Your task to perform on an android device: Open the calendar app, open the side menu, and click the "Day" option Image 0: 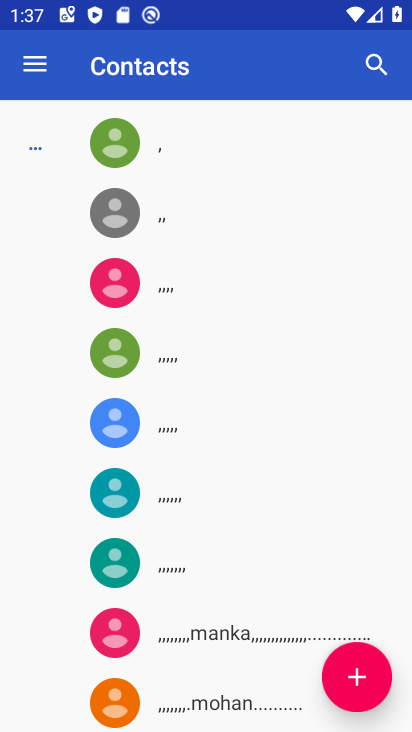
Step 0: press home button
Your task to perform on an android device: Open the calendar app, open the side menu, and click the "Day" option Image 1: 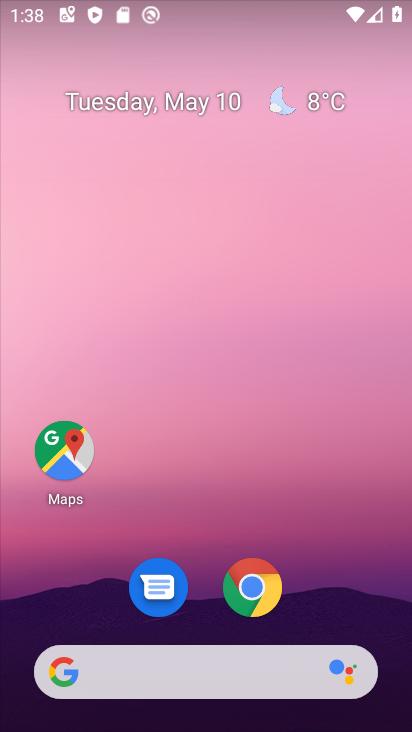
Step 1: drag from (326, 550) to (273, 57)
Your task to perform on an android device: Open the calendar app, open the side menu, and click the "Day" option Image 2: 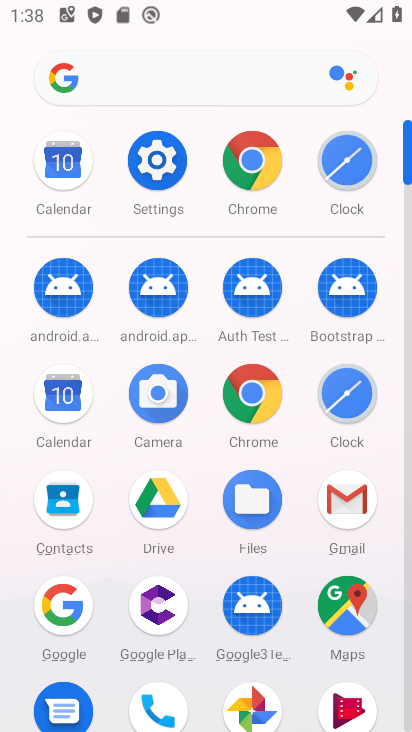
Step 2: click (63, 387)
Your task to perform on an android device: Open the calendar app, open the side menu, and click the "Day" option Image 3: 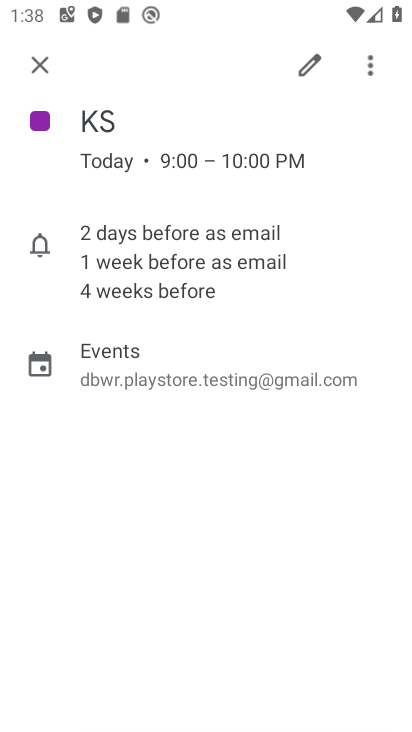
Step 3: click (26, 54)
Your task to perform on an android device: Open the calendar app, open the side menu, and click the "Day" option Image 4: 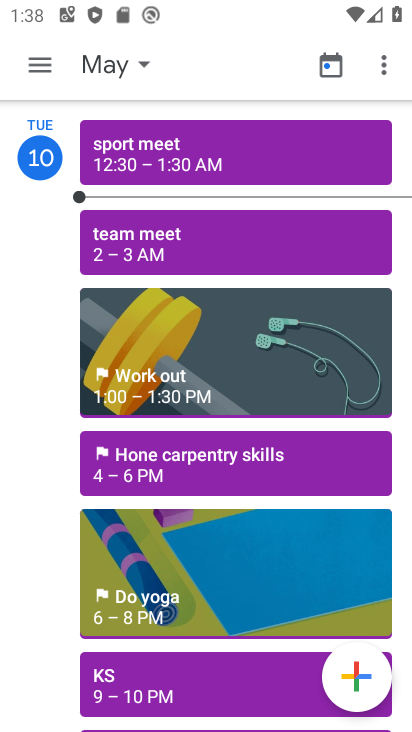
Step 4: click (44, 65)
Your task to perform on an android device: Open the calendar app, open the side menu, and click the "Day" option Image 5: 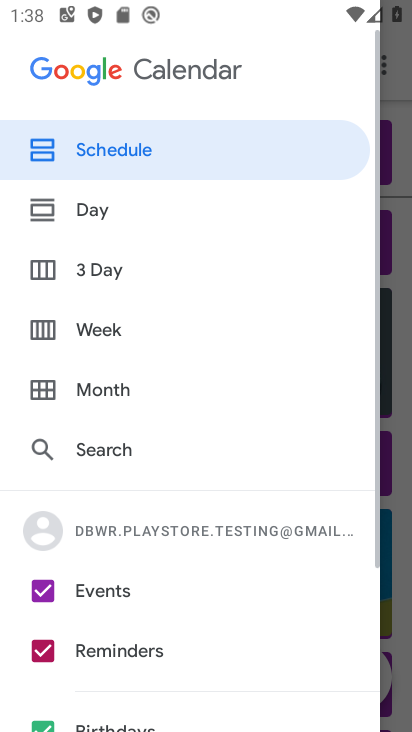
Step 5: click (97, 202)
Your task to perform on an android device: Open the calendar app, open the side menu, and click the "Day" option Image 6: 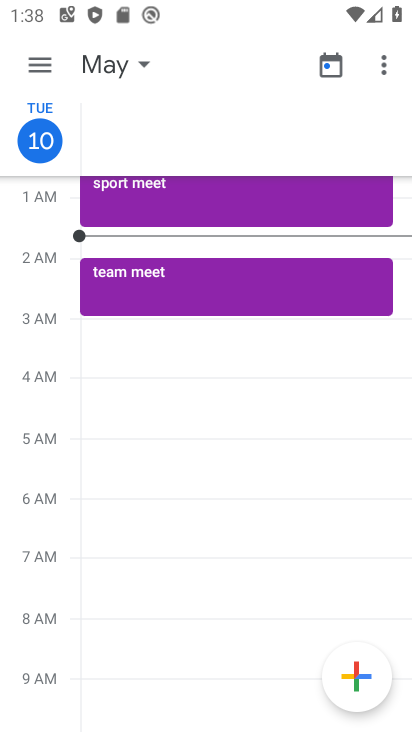
Step 6: task complete